Your task to perform on an android device: Go to internet settings Image 0: 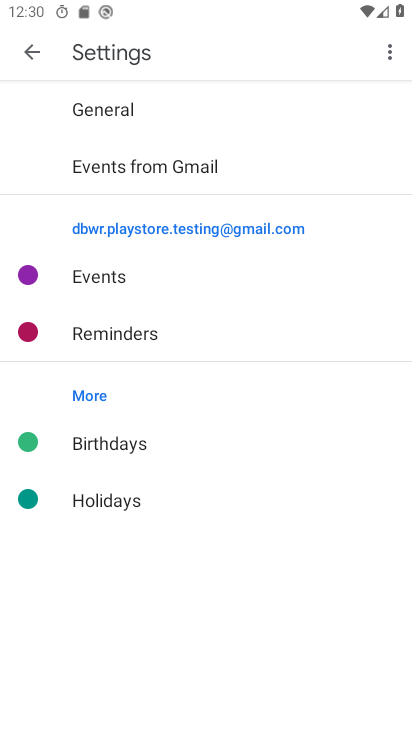
Step 0: drag from (250, 463) to (289, 207)
Your task to perform on an android device: Go to internet settings Image 1: 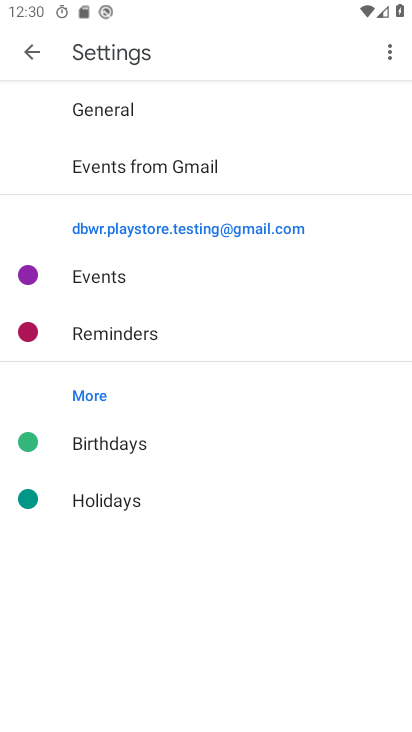
Step 1: press home button
Your task to perform on an android device: Go to internet settings Image 2: 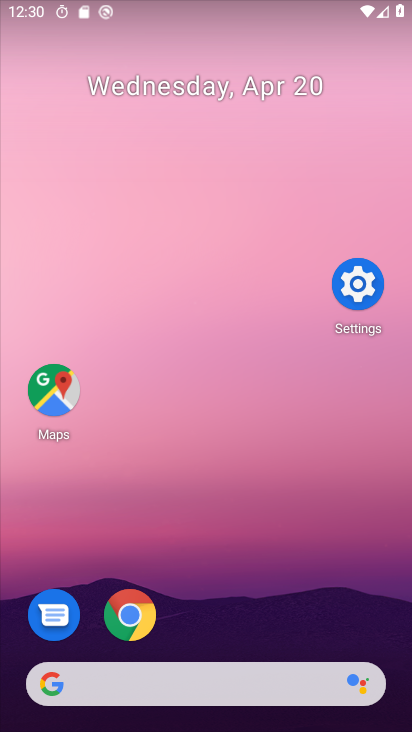
Step 2: click (348, 284)
Your task to perform on an android device: Go to internet settings Image 3: 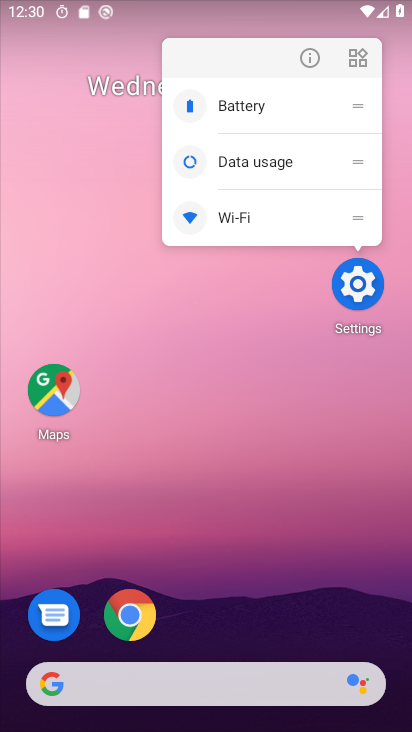
Step 3: click (309, 51)
Your task to perform on an android device: Go to internet settings Image 4: 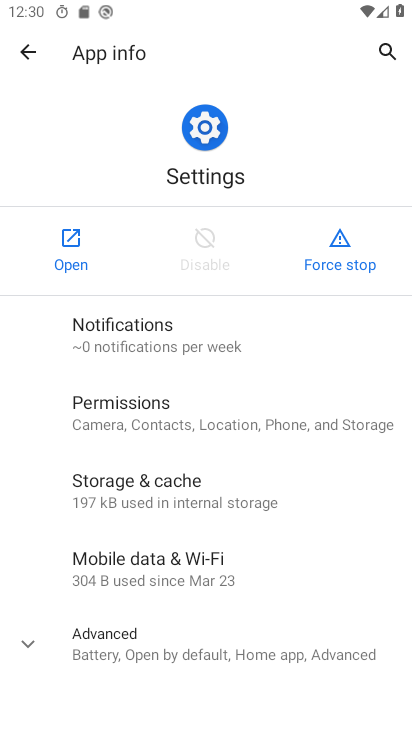
Step 4: click (75, 255)
Your task to perform on an android device: Go to internet settings Image 5: 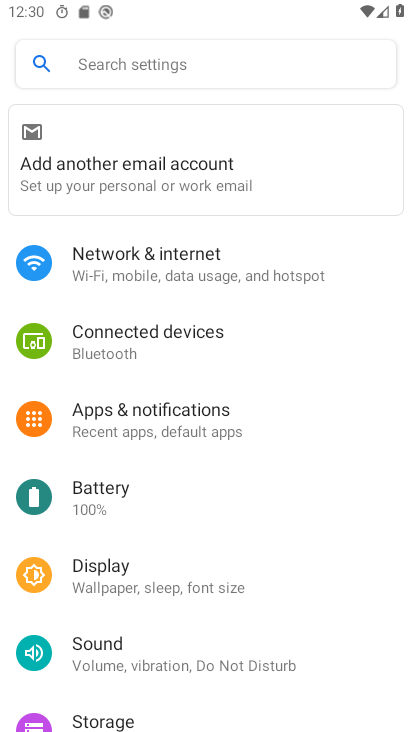
Step 5: drag from (229, 160) to (275, 11)
Your task to perform on an android device: Go to internet settings Image 6: 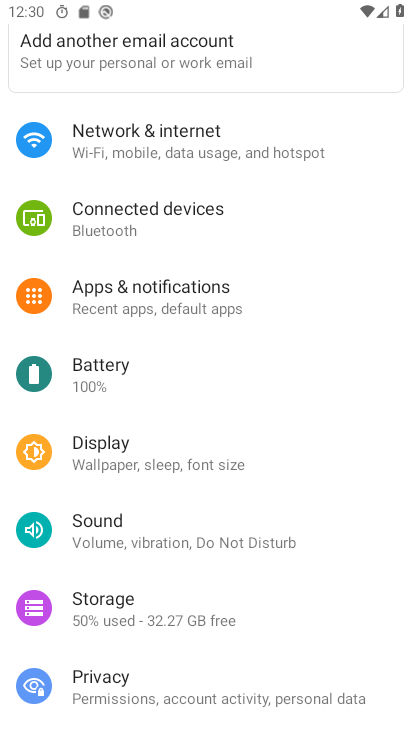
Step 6: click (152, 135)
Your task to perform on an android device: Go to internet settings Image 7: 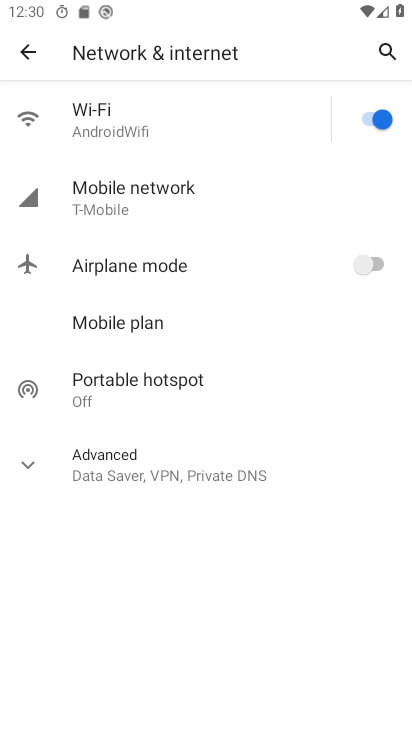
Step 7: task complete